Your task to perform on an android device: Go to Google Image 0: 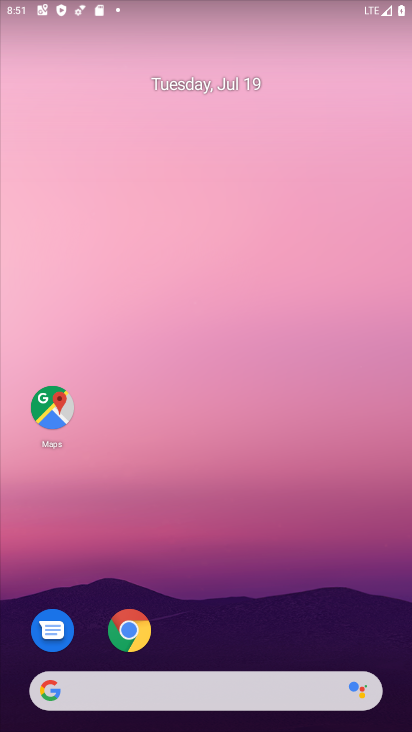
Step 0: drag from (200, 647) to (251, 89)
Your task to perform on an android device: Go to Google Image 1: 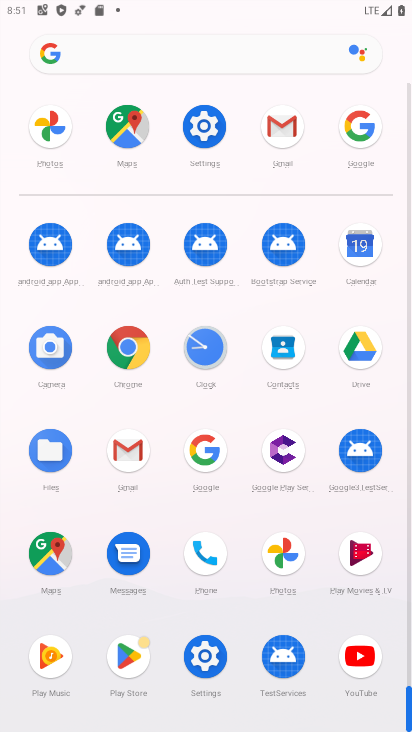
Step 1: click (372, 156)
Your task to perform on an android device: Go to Google Image 2: 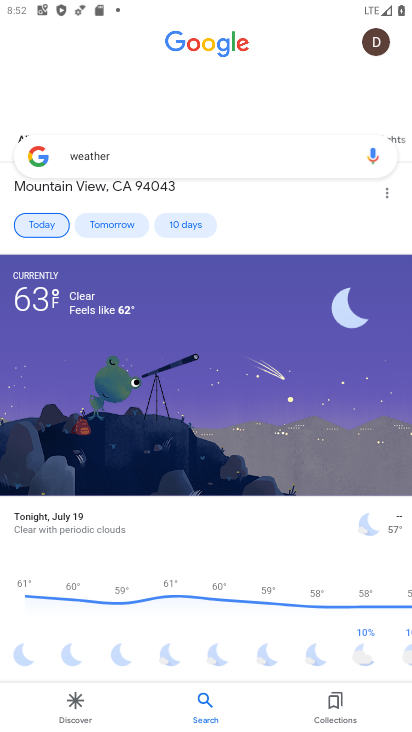
Step 2: task complete